Your task to perform on an android device: Go to battery settings Image 0: 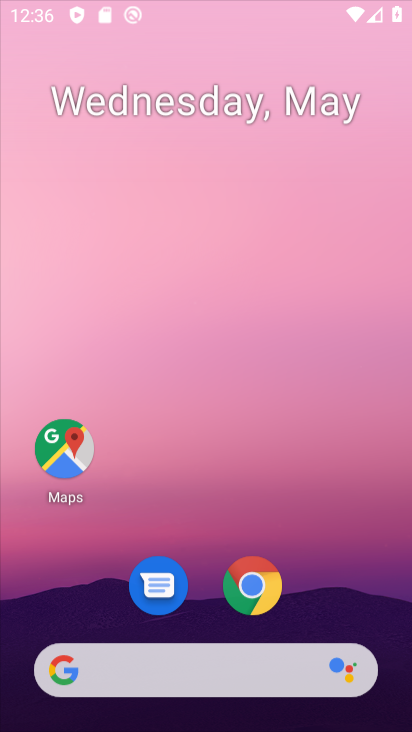
Step 0: click (366, 175)
Your task to perform on an android device: Go to battery settings Image 1: 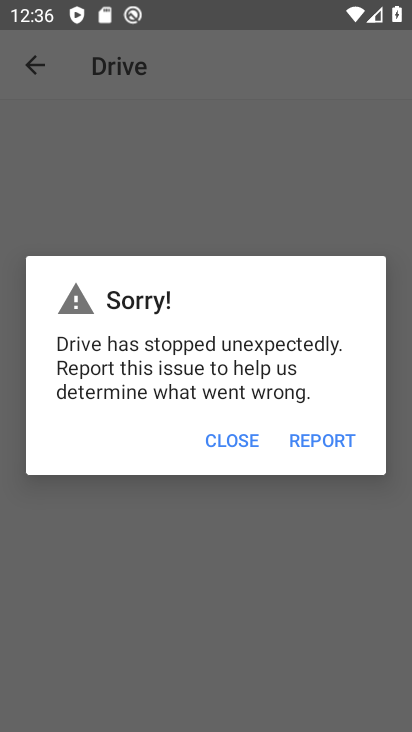
Step 1: press home button
Your task to perform on an android device: Go to battery settings Image 2: 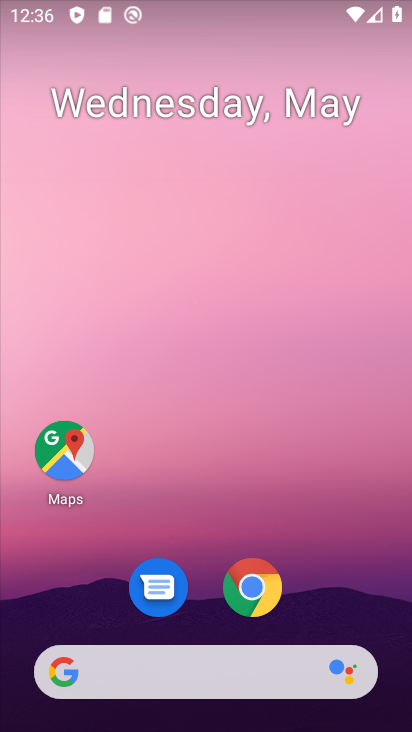
Step 2: drag from (369, 573) to (365, 244)
Your task to perform on an android device: Go to battery settings Image 3: 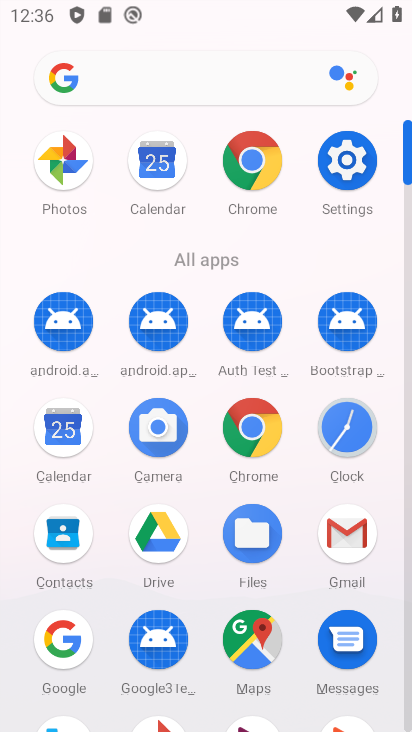
Step 3: click (354, 168)
Your task to perform on an android device: Go to battery settings Image 4: 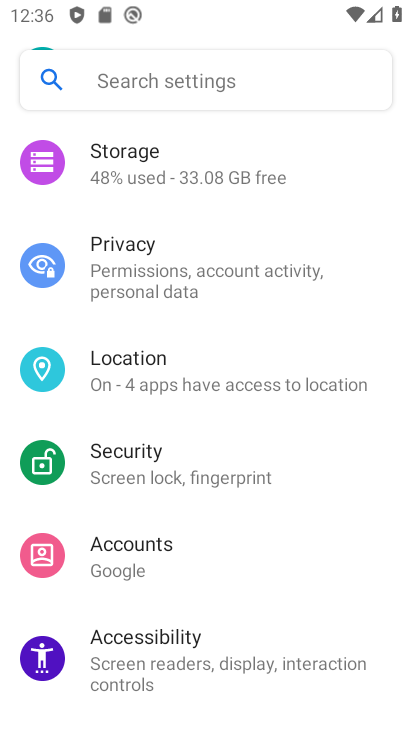
Step 4: drag from (354, 168) to (357, 288)
Your task to perform on an android device: Go to battery settings Image 5: 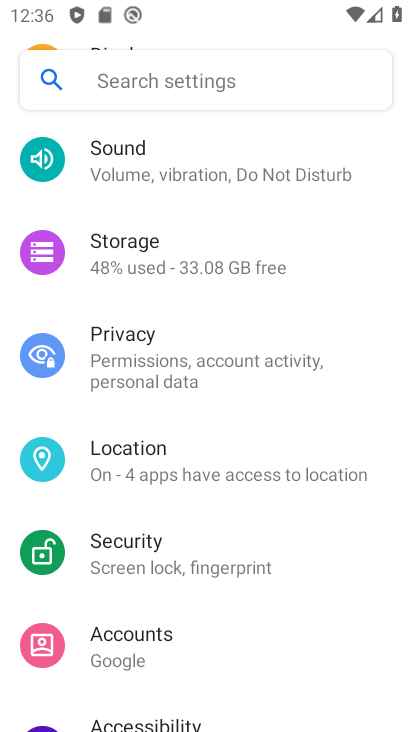
Step 5: drag from (353, 232) to (346, 385)
Your task to perform on an android device: Go to battery settings Image 6: 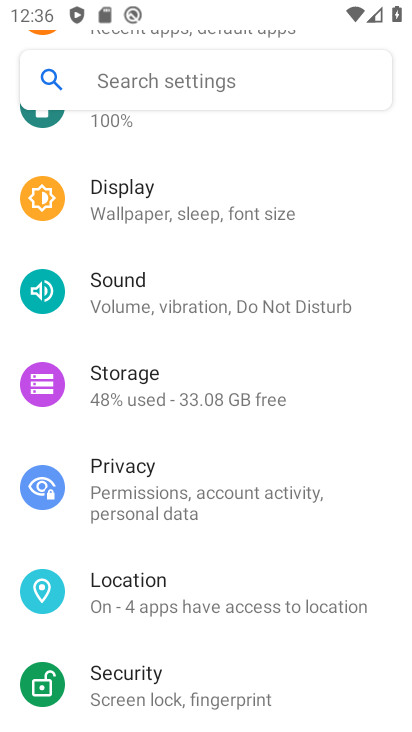
Step 6: drag from (372, 220) to (378, 332)
Your task to perform on an android device: Go to battery settings Image 7: 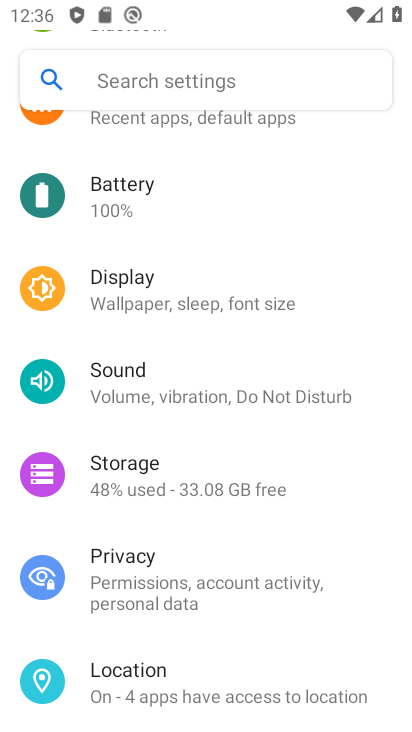
Step 7: drag from (366, 219) to (353, 321)
Your task to perform on an android device: Go to battery settings Image 8: 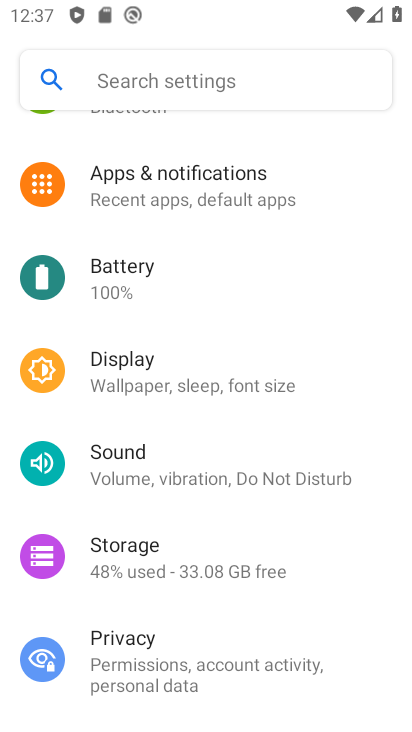
Step 8: drag from (351, 256) to (353, 388)
Your task to perform on an android device: Go to battery settings Image 9: 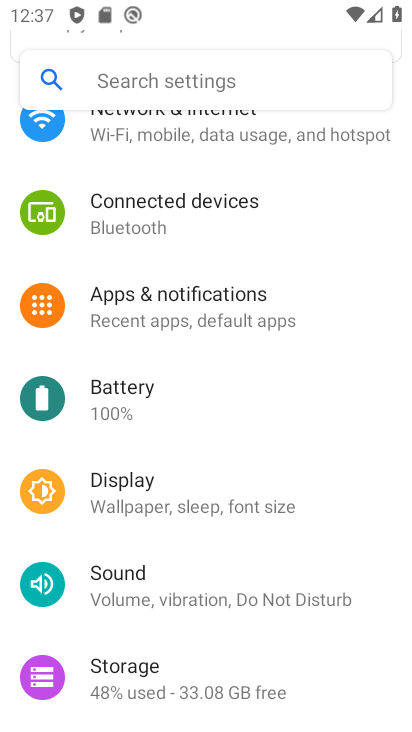
Step 9: drag from (346, 219) to (349, 397)
Your task to perform on an android device: Go to battery settings Image 10: 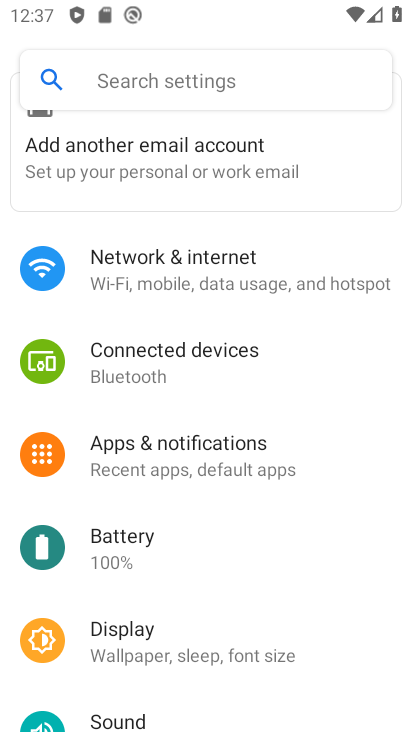
Step 10: drag from (345, 227) to (355, 367)
Your task to perform on an android device: Go to battery settings Image 11: 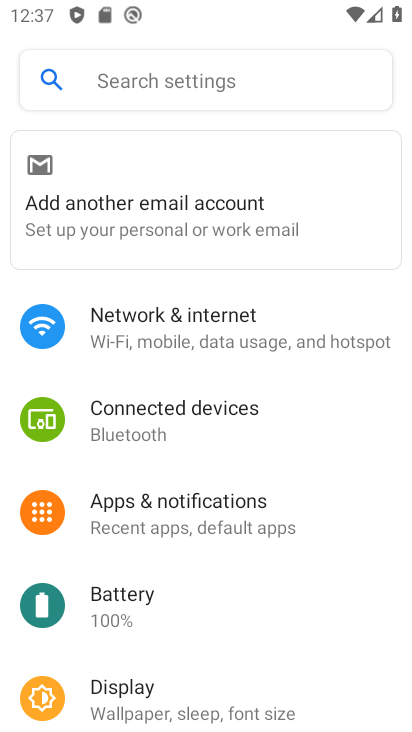
Step 11: drag from (332, 479) to (344, 326)
Your task to perform on an android device: Go to battery settings Image 12: 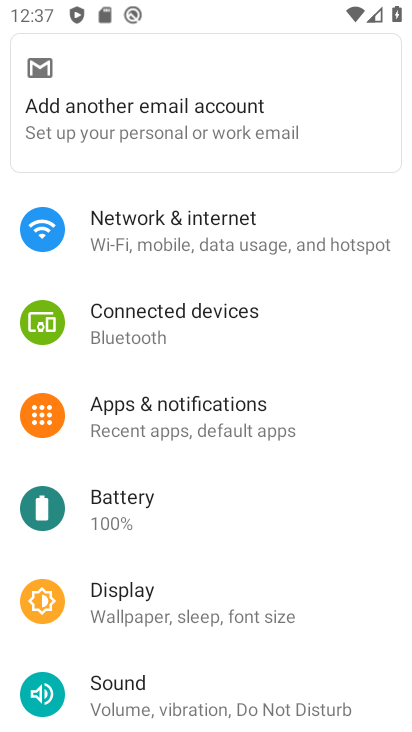
Step 12: drag from (343, 456) to (331, 352)
Your task to perform on an android device: Go to battery settings Image 13: 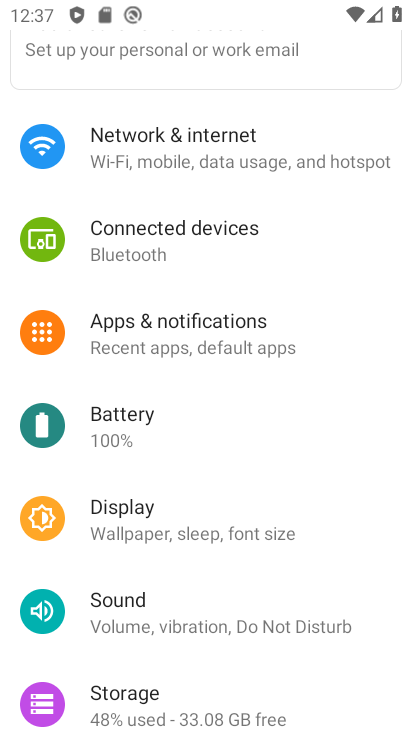
Step 13: drag from (359, 462) to (355, 346)
Your task to perform on an android device: Go to battery settings Image 14: 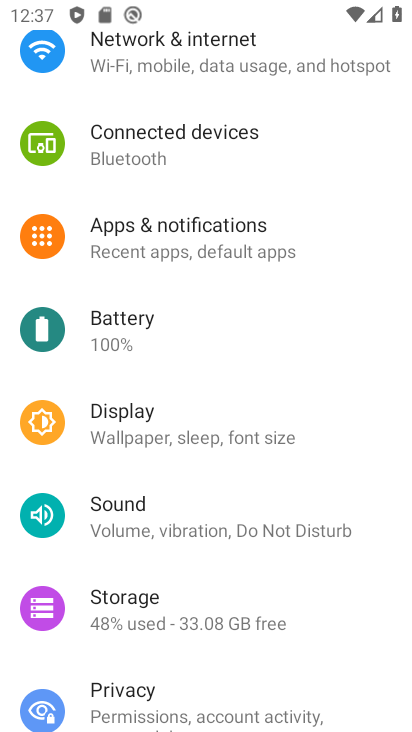
Step 14: drag from (345, 481) to (362, 394)
Your task to perform on an android device: Go to battery settings Image 15: 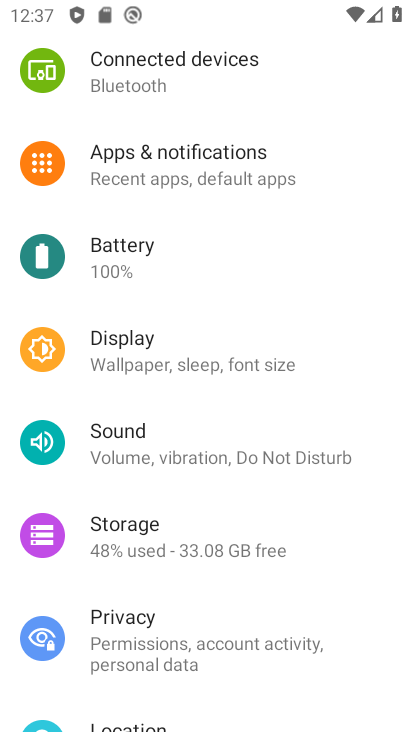
Step 15: click (136, 250)
Your task to perform on an android device: Go to battery settings Image 16: 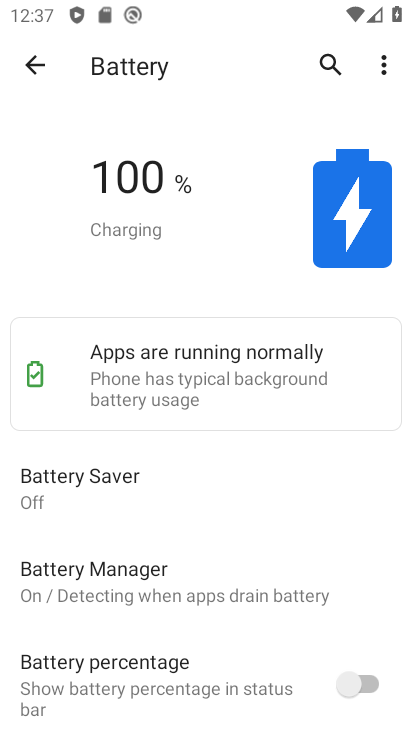
Step 16: task complete